Your task to perform on an android device: change your default location settings in chrome Image 0: 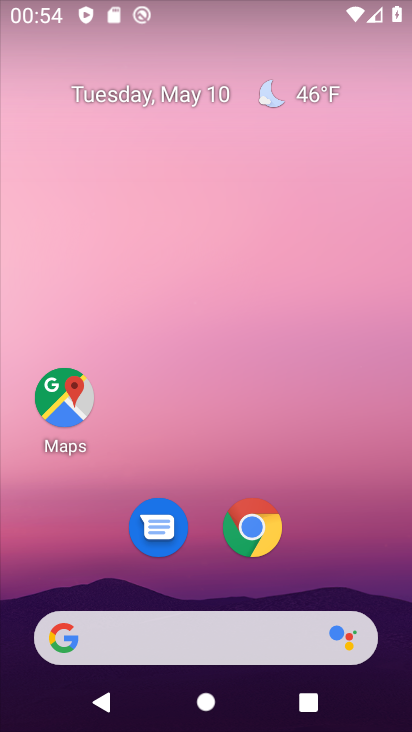
Step 0: click (263, 524)
Your task to perform on an android device: change your default location settings in chrome Image 1: 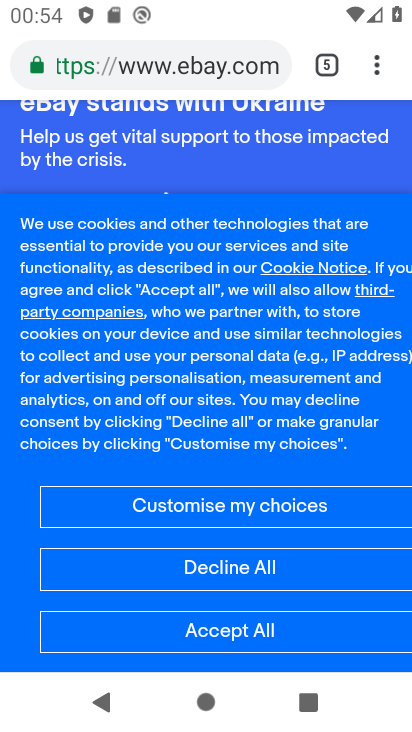
Step 1: drag from (379, 69) to (158, 574)
Your task to perform on an android device: change your default location settings in chrome Image 2: 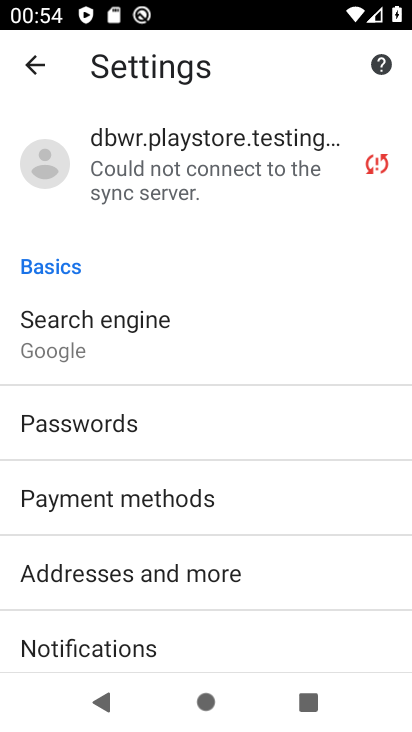
Step 2: drag from (195, 634) to (195, 292)
Your task to perform on an android device: change your default location settings in chrome Image 3: 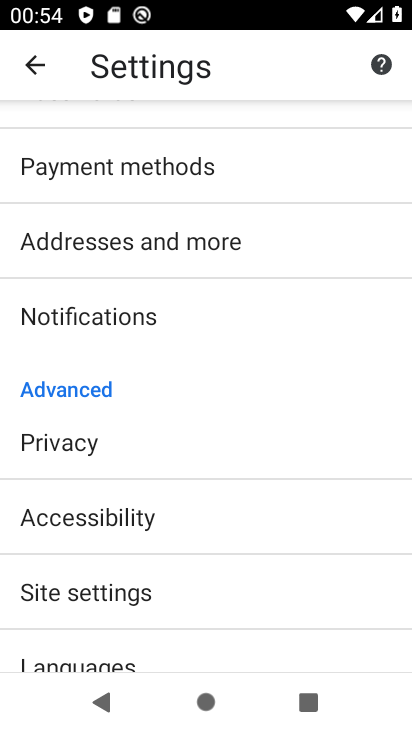
Step 3: click (117, 595)
Your task to perform on an android device: change your default location settings in chrome Image 4: 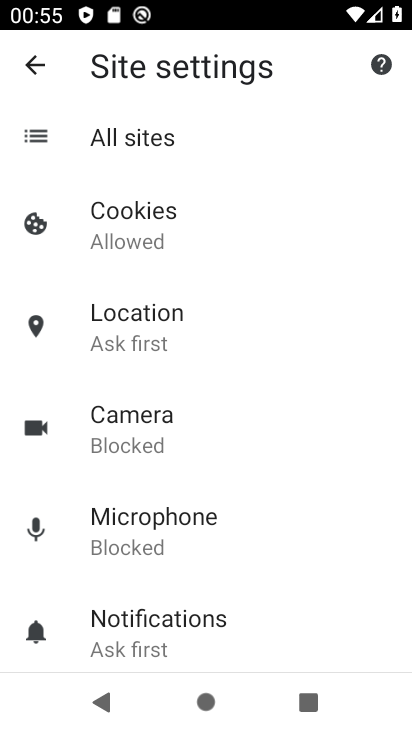
Step 4: click (139, 332)
Your task to perform on an android device: change your default location settings in chrome Image 5: 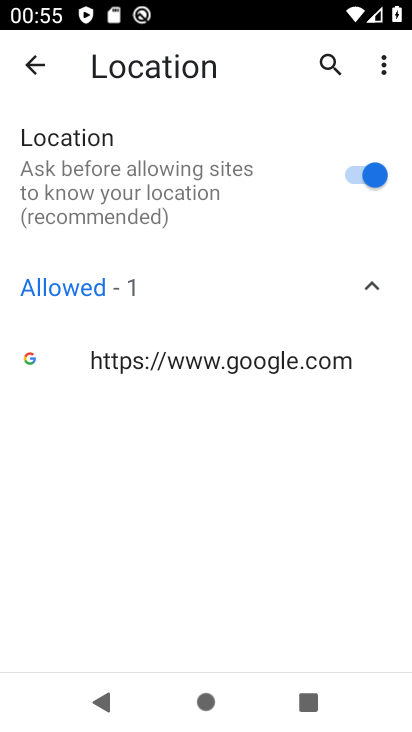
Step 5: task complete